Your task to perform on an android device: change alarm snooze length Image 0: 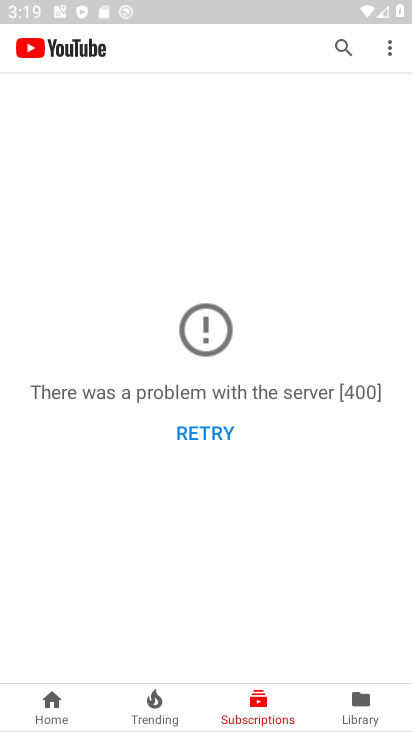
Step 0: press home button
Your task to perform on an android device: change alarm snooze length Image 1: 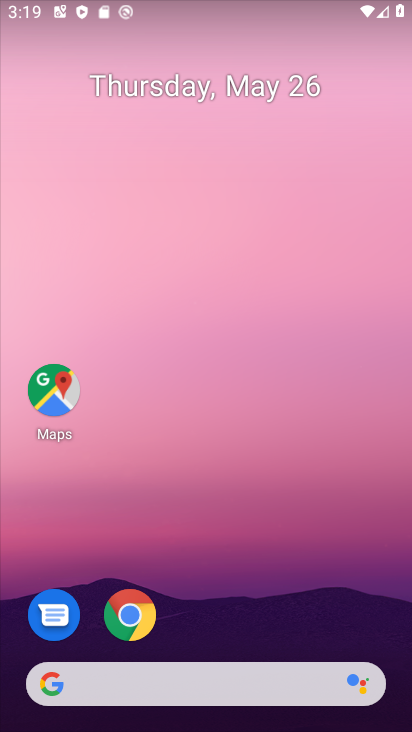
Step 1: drag from (327, 594) to (292, 3)
Your task to perform on an android device: change alarm snooze length Image 2: 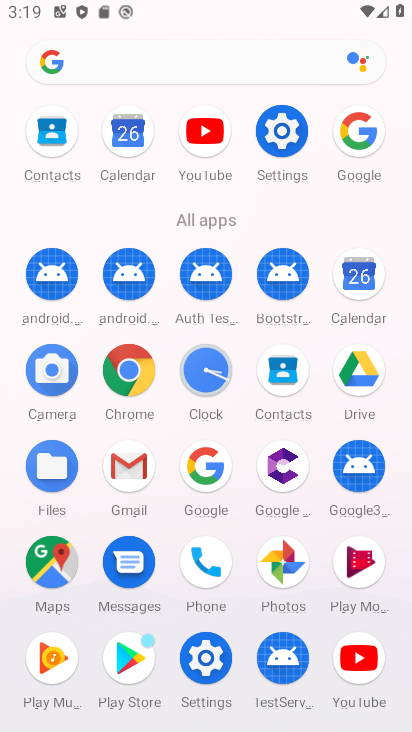
Step 2: drag from (322, 255) to (318, 141)
Your task to perform on an android device: change alarm snooze length Image 3: 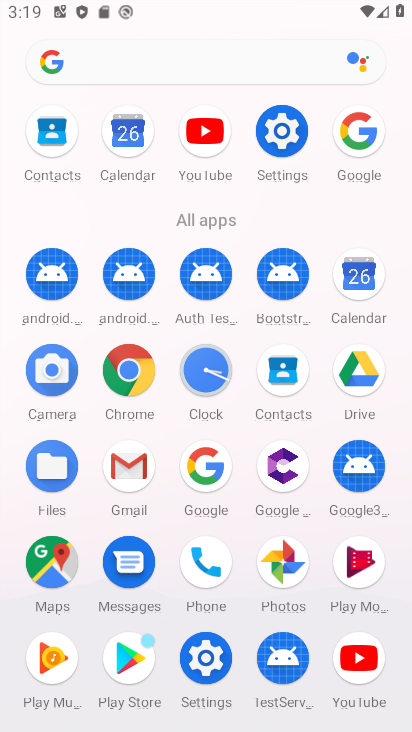
Step 3: click (216, 361)
Your task to perform on an android device: change alarm snooze length Image 4: 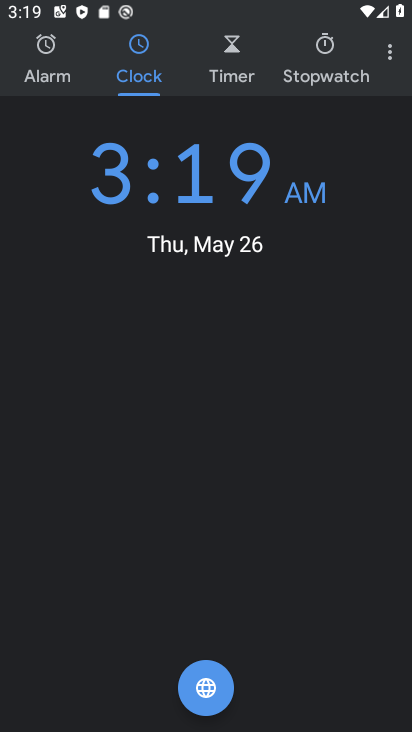
Step 4: click (400, 50)
Your task to perform on an android device: change alarm snooze length Image 5: 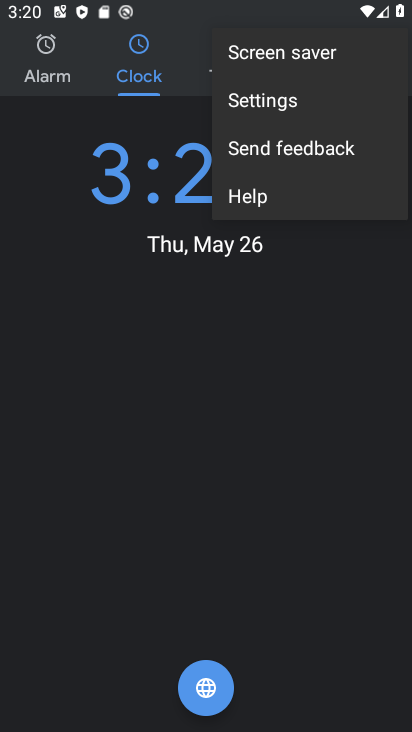
Step 5: click (350, 109)
Your task to perform on an android device: change alarm snooze length Image 6: 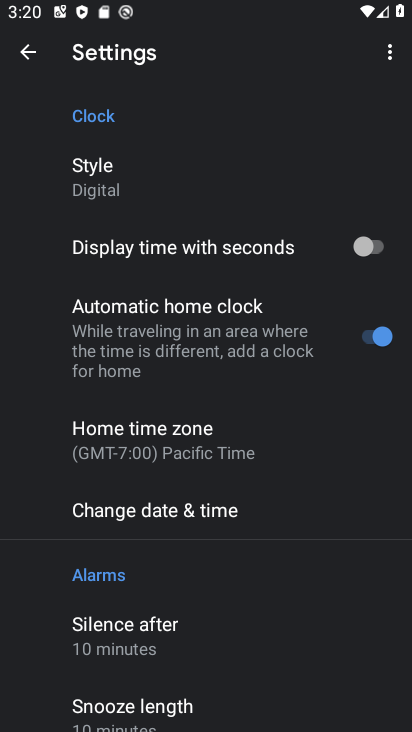
Step 6: drag from (229, 596) to (213, 378)
Your task to perform on an android device: change alarm snooze length Image 7: 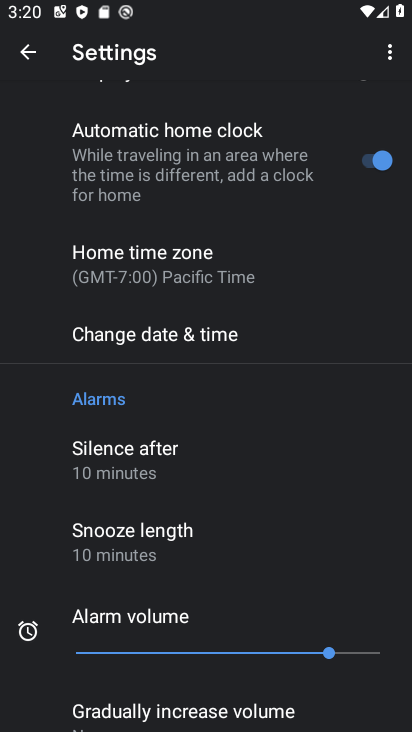
Step 7: click (212, 555)
Your task to perform on an android device: change alarm snooze length Image 8: 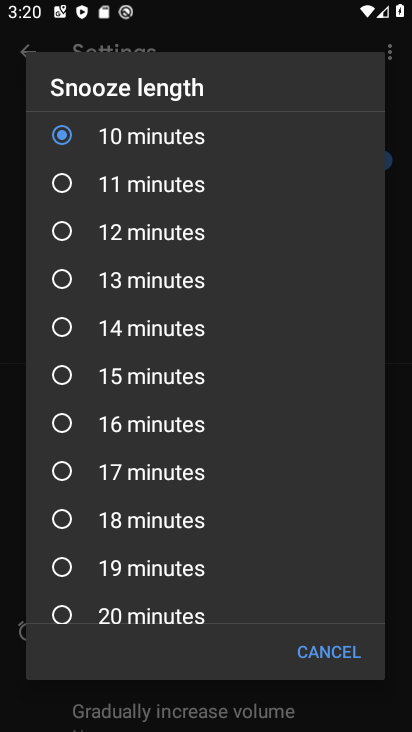
Step 8: click (127, 571)
Your task to perform on an android device: change alarm snooze length Image 9: 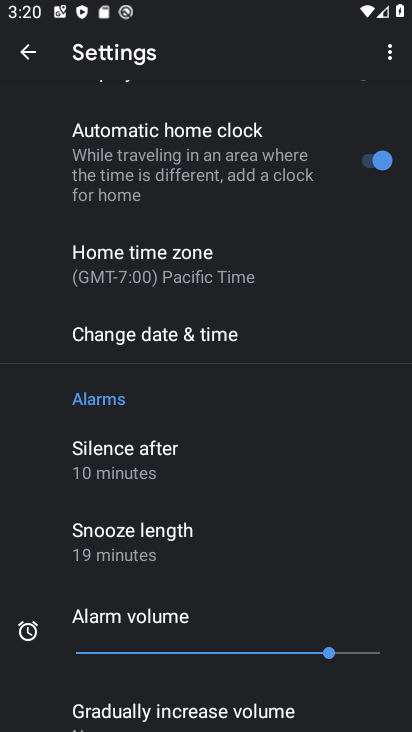
Step 9: task complete